Your task to perform on an android device: open app "Airtel Thanks" (install if not already installed), go to login, and select forgot password Image 0: 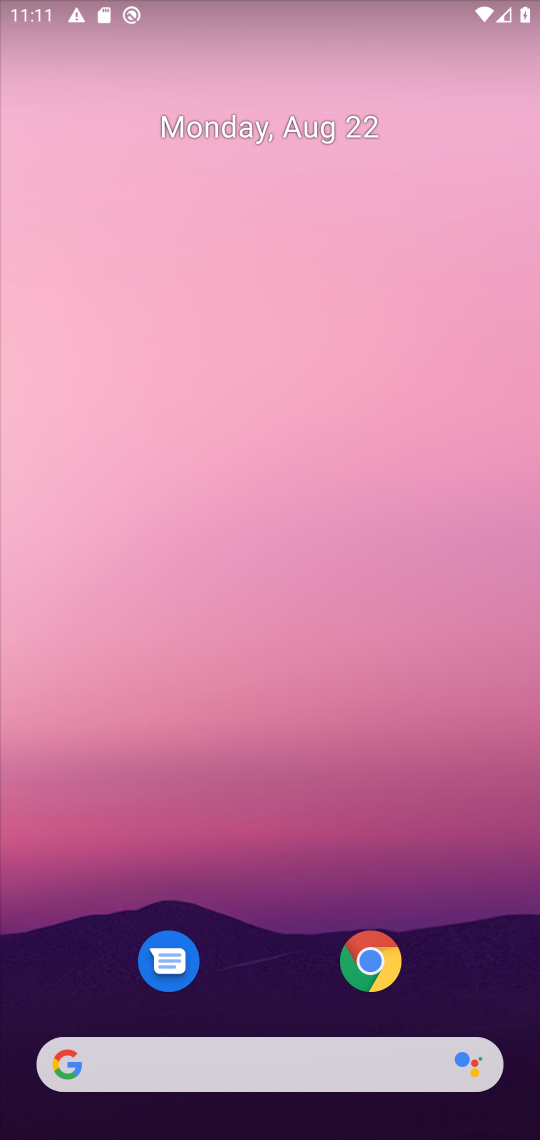
Step 0: task complete